Your task to perform on an android device: empty trash in the gmail app Image 0: 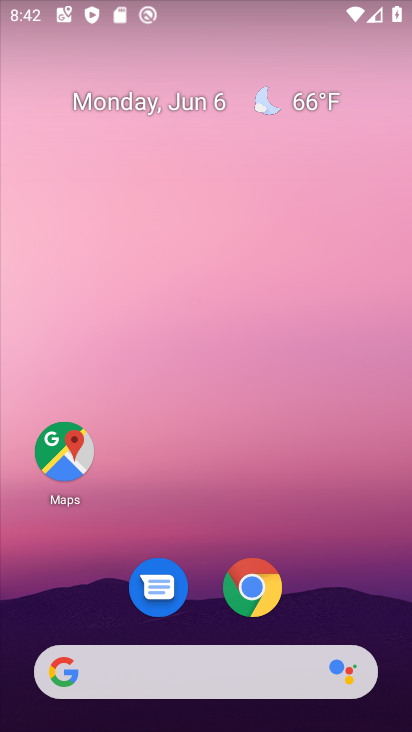
Step 0: drag from (208, 652) to (166, 168)
Your task to perform on an android device: empty trash in the gmail app Image 1: 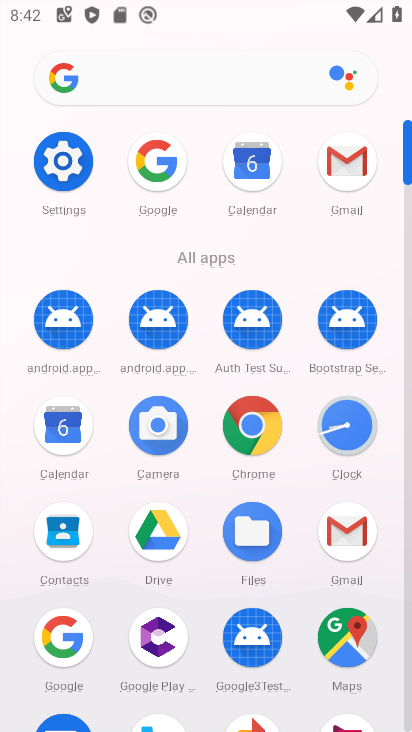
Step 1: click (338, 180)
Your task to perform on an android device: empty trash in the gmail app Image 2: 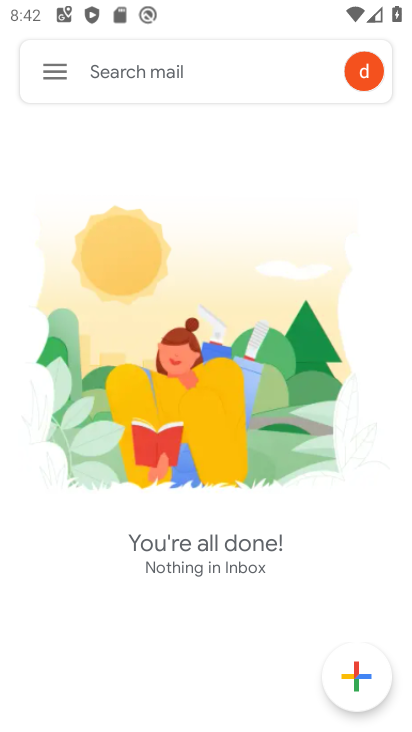
Step 2: click (65, 81)
Your task to perform on an android device: empty trash in the gmail app Image 3: 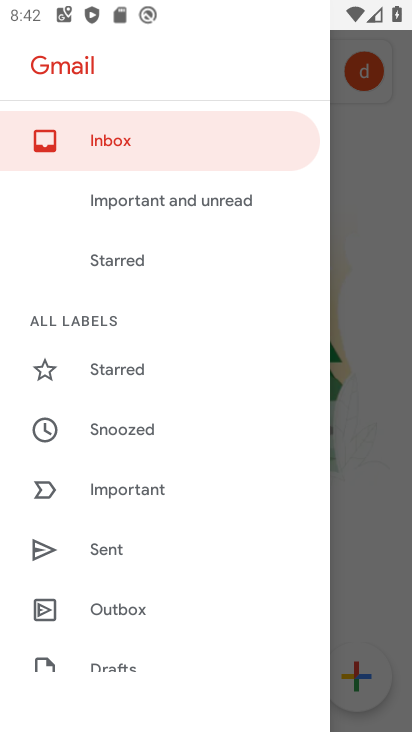
Step 3: drag from (148, 605) to (138, 136)
Your task to perform on an android device: empty trash in the gmail app Image 4: 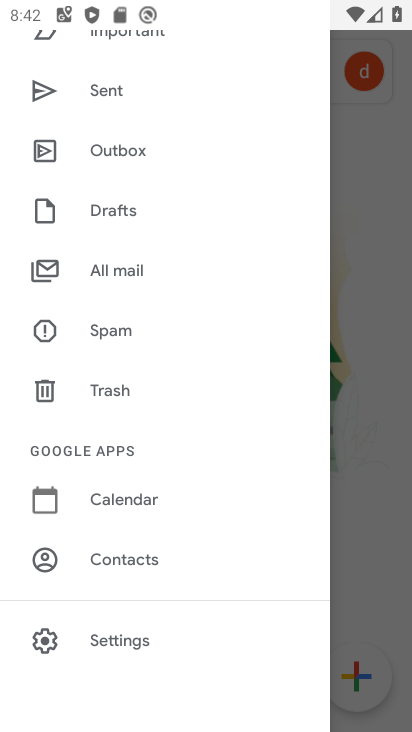
Step 4: click (98, 384)
Your task to perform on an android device: empty trash in the gmail app Image 5: 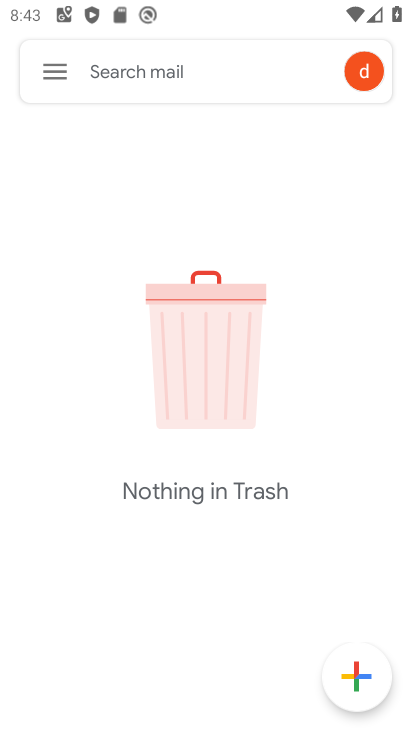
Step 5: task complete